Your task to perform on an android device: clear history in the chrome app Image 0: 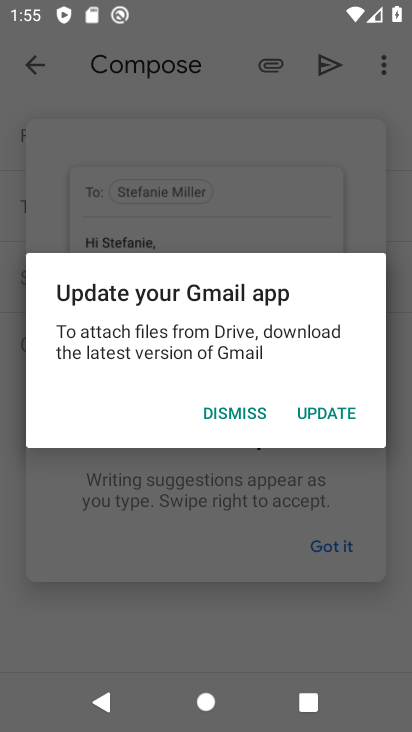
Step 0: press home button
Your task to perform on an android device: clear history in the chrome app Image 1: 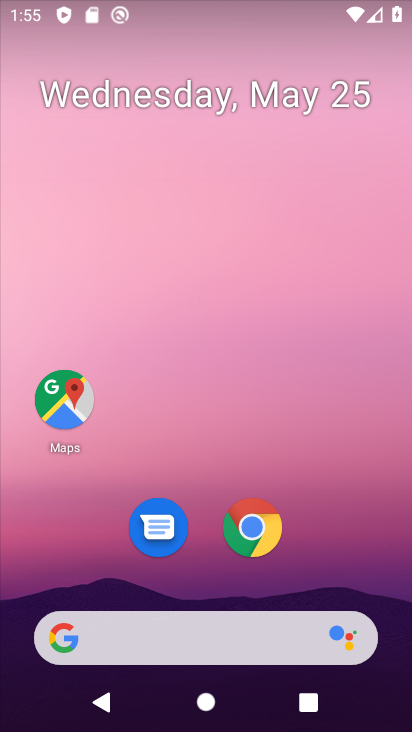
Step 1: click (259, 532)
Your task to perform on an android device: clear history in the chrome app Image 2: 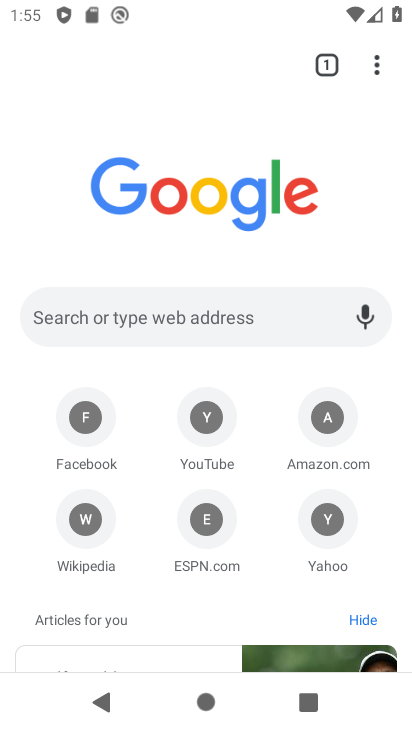
Step 2: task complete